Your task to perform on an android device: Go to wifi settings Image 0: 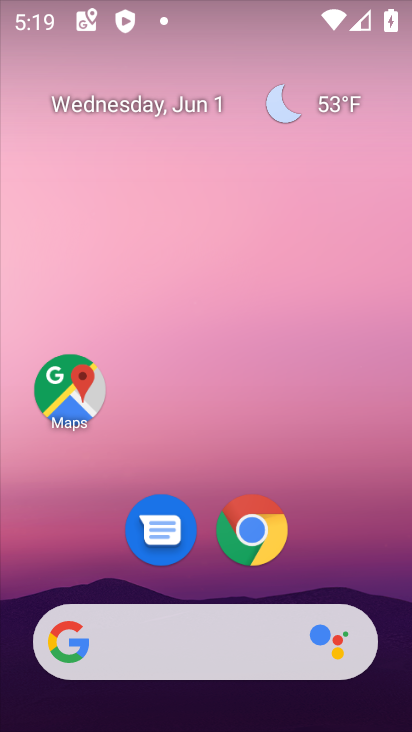
Step 0: press home button
Your task to perform on an android device: Go to wifi settings Image 1: 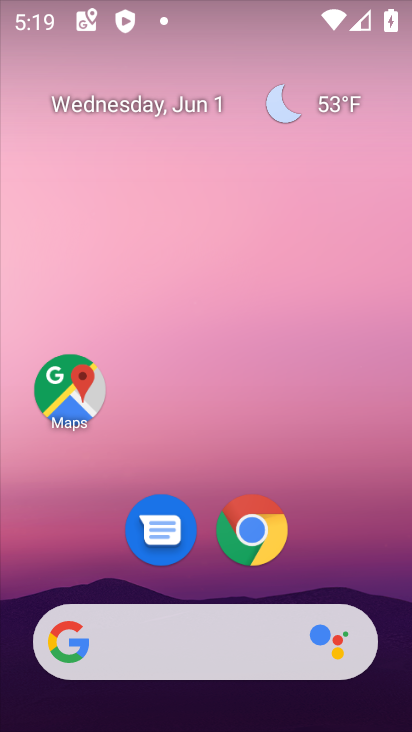
Step 1: drag from (185, 590) to (171, 164)
Your task to perform on an android device: Go to wifi settings Image 2: 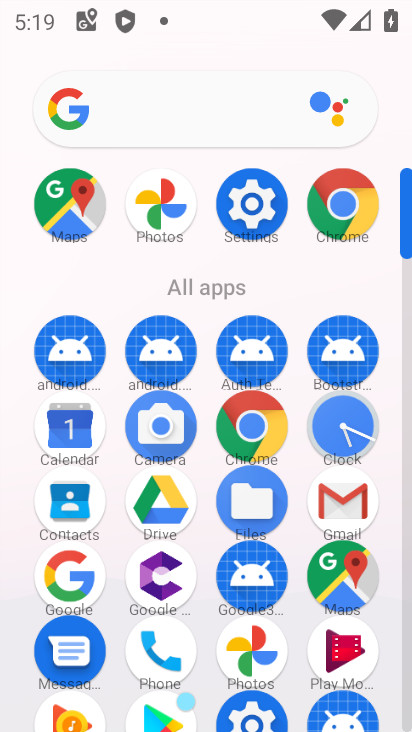
Step 2: click (251, 205)
Your task to perform on an android device: Go to wifi settings Image 3: 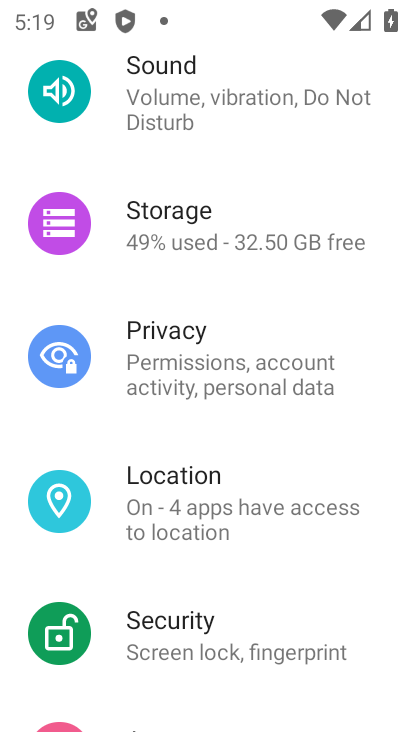
Step 3: drag from (214, 176) to (215, 493)
Your task to perform on an android device: Go to wifi settings Image 4: 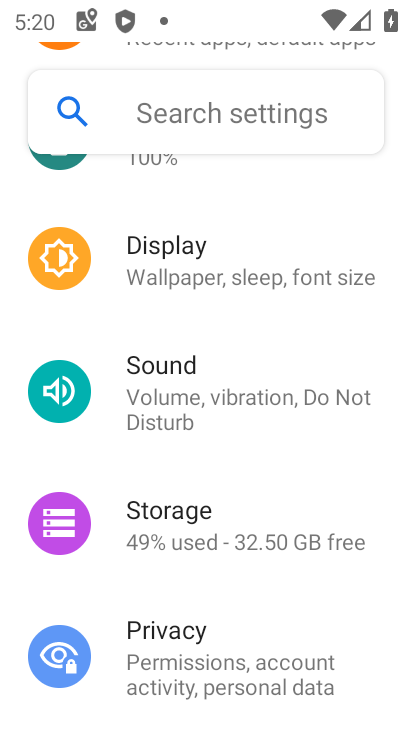
Step 4: drag from (176, 340) to (183, 599)
Your task to perform on an android device: Go to wifi settings Image 5: 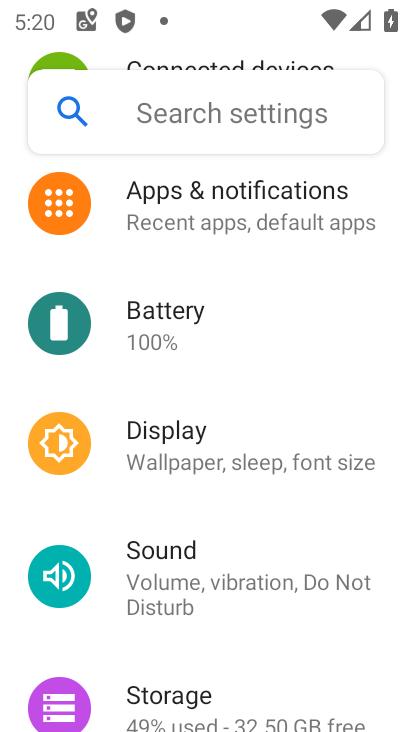
Step 5: drag from (224, 354) to (248, 637)
Your task to perform on an android device: Go to wifi settings Image 6: 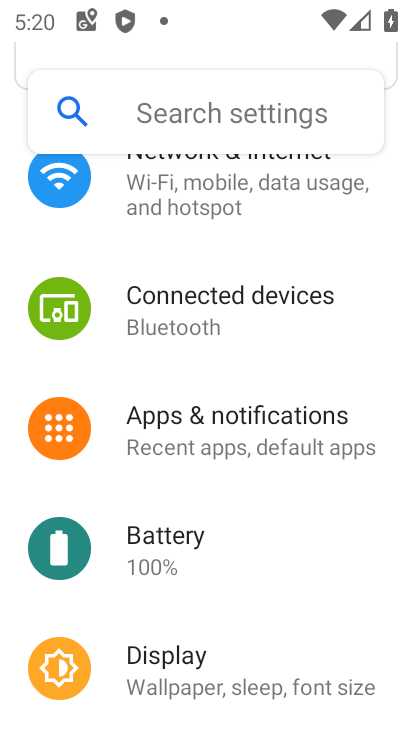
Step 6: drag from (216, 335) to (226, 729)
Your task to perform on an android device: Go to wifi settings Image 7: 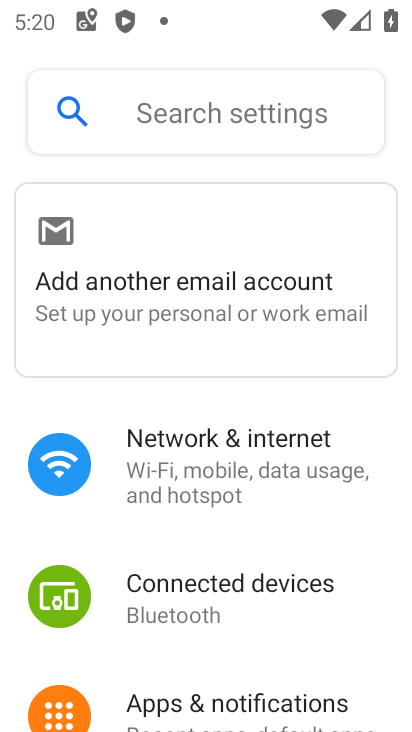
Step 7: click (203, 483)
Your task to perform on an android device: Go to wifi settings Image 8: 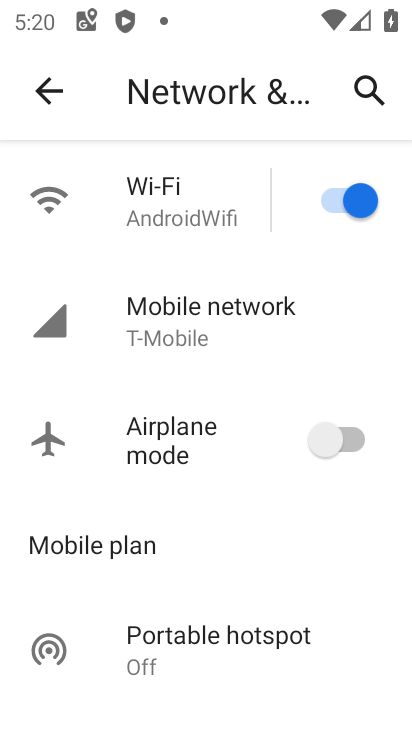
Step 8: click (160, 212)
Your task to perform on an android device: Go to wifi settings Image 9: 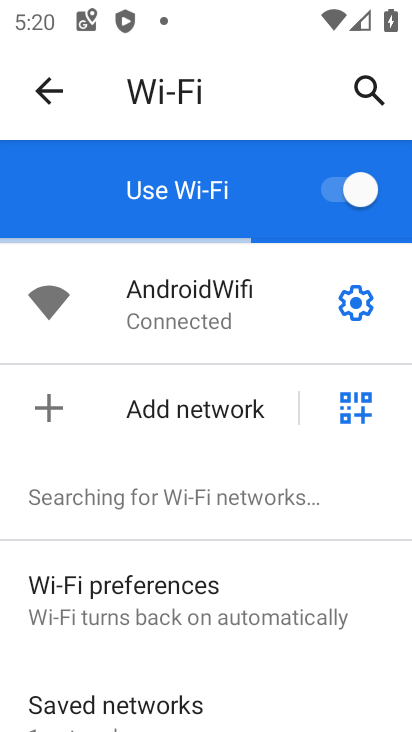
Step 9: task complete